Your task to perform on an android device: Toggle the flashlight Image 0: 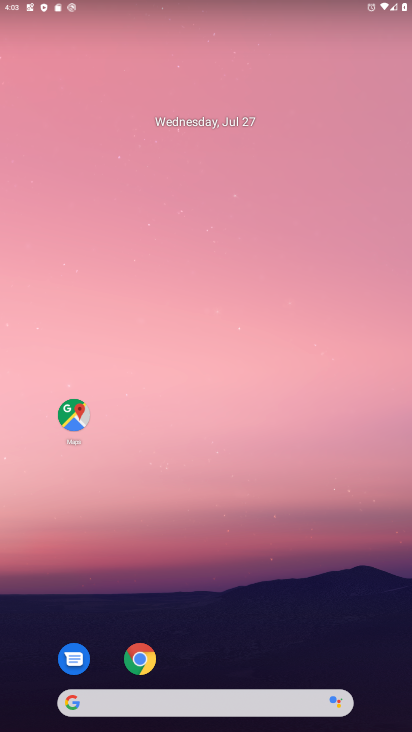
Step 0: drag from (274, 594) to (274, 102)
Your task to perform on an android device: Toggle the flashlight Image 1: 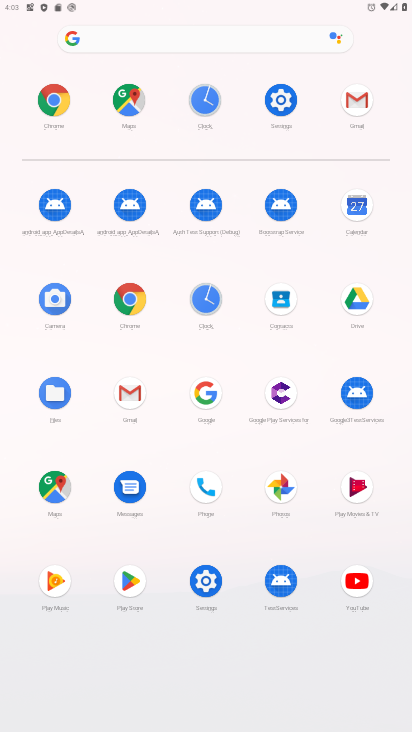
Step 1: click (282, 88)
Your task to perform on an android device: Toggle the flashlight Image 2: 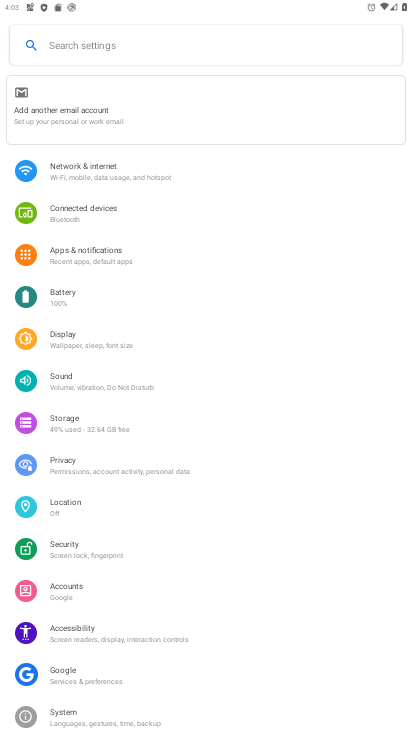
Step 2: task complete